Your task to perform on an android device: turn on wifi Image 0: 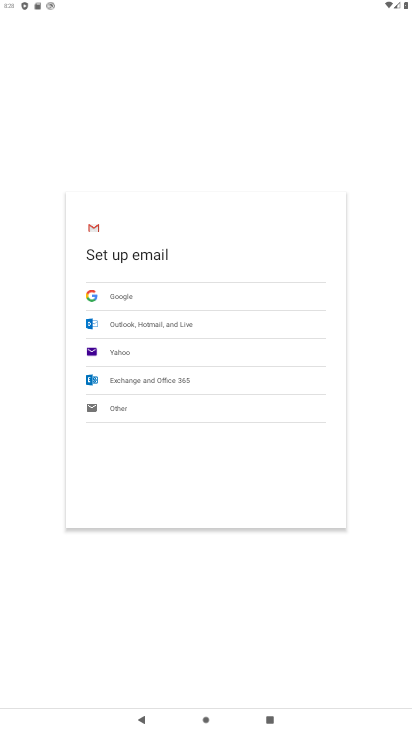
Step 0: press home button
Your task to perform on an android device: turn on wifi Image 1: 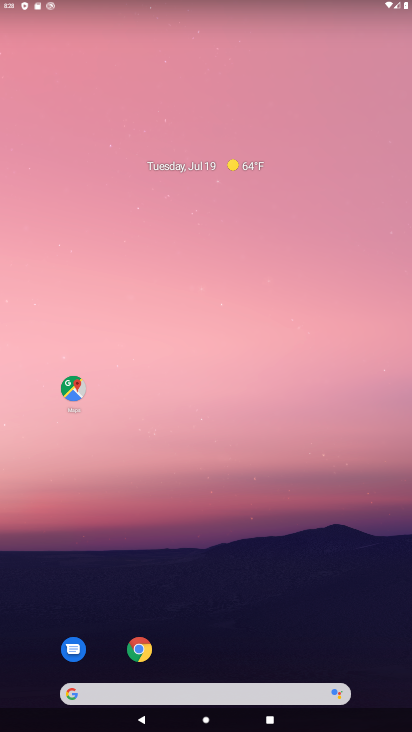
Step 1: drag from (209, 647) to (225, 48)
Your task to perform on an android device: turn on wifi Image 2: 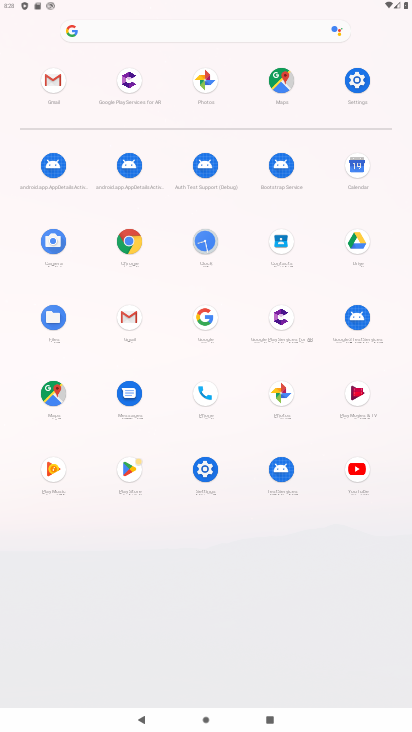
Step 2: click (353, 73)
Your task to perform on an android device: turn on wifi Image 3: 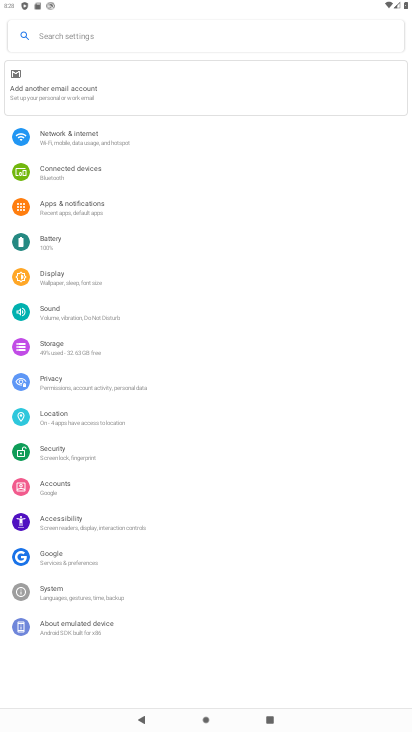
Step 3: click (75, 126)
Your task to perform on an android device: turn on wifi Image 4: 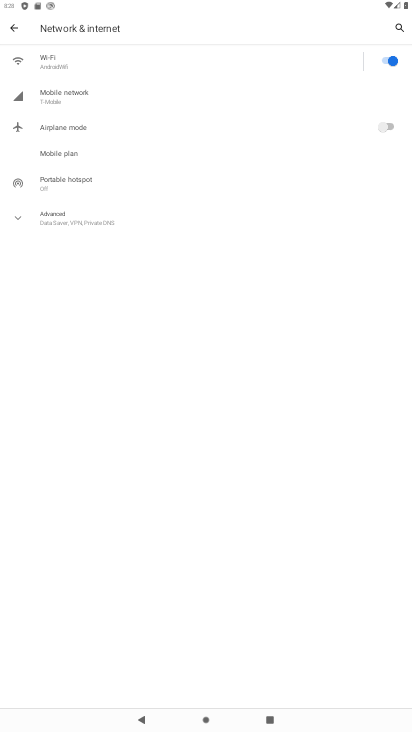
Step 4: task complete